Your task to perform on an android device: stop showing notifications on the lock screen Image 0: 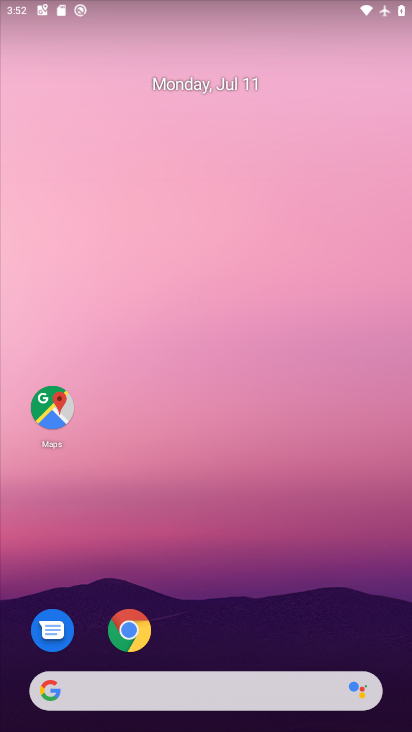
Step 0: drag from (259, 631) to (215, 95)
Your task to perform on an android device: stop showing notifications on the lock screen Image 1: 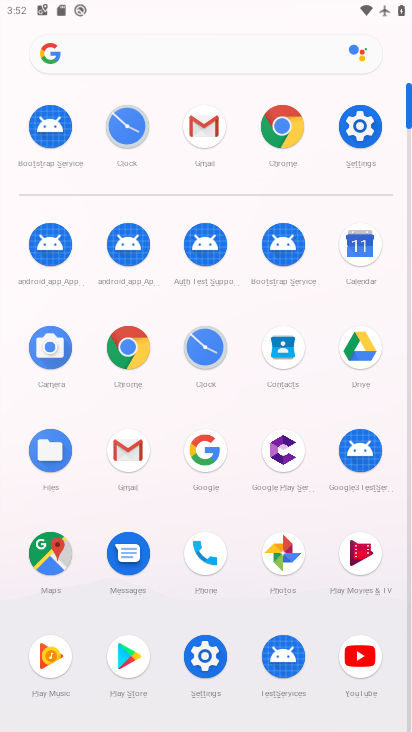
Step 1: click (379, 135)
Your task to perform on an android device: stop showing notifications on the lock screen Image 2: 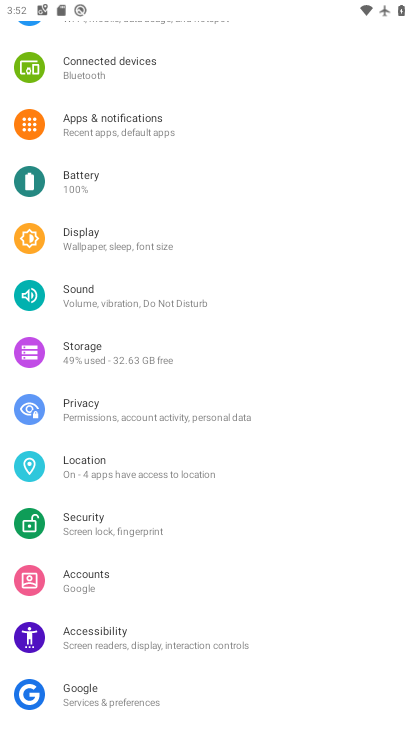
Step 2: drag from (230, 596) to (244, 363)
Your task to perform on an android device: stop showing notifications on the lock screen Image 3: 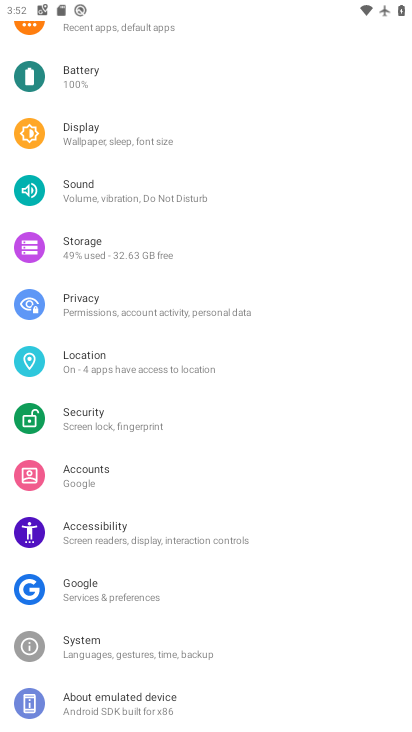
Step 3: drag from (134, 74) to (192, 280)
Your task to perform on an android device: stop showing notifications on the lock screen Image 4: 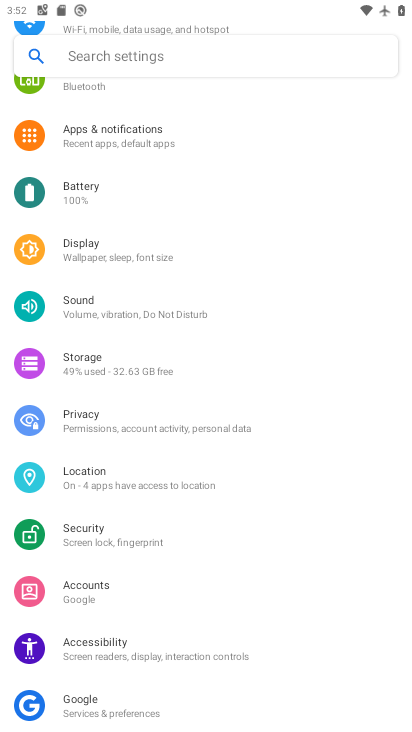
Step 4: click (142, 143)
Your task to perform on an android device: stop showing notifications on the lock screen Image 5: 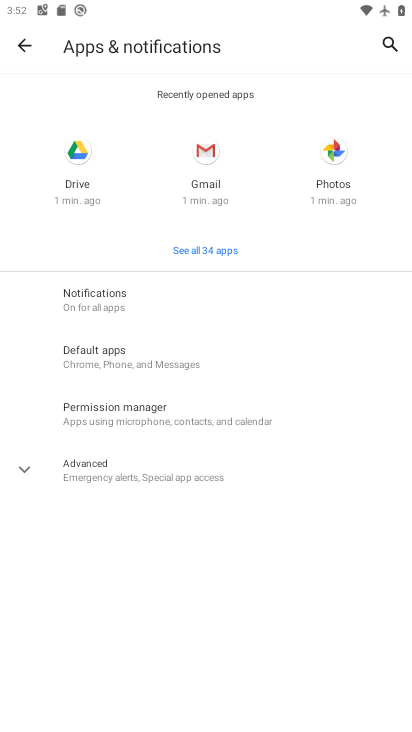
Step 5: click (165, 319)
Your task to perform on an android device: stop showing notifications on the lock screen Image 6: 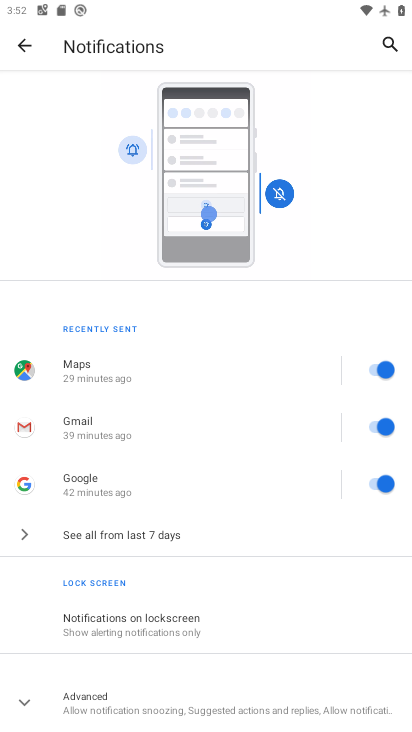
Step 6: click (250, 626)
Your task to perform on an android device: stop showing notifications on the lock screen Image 7: 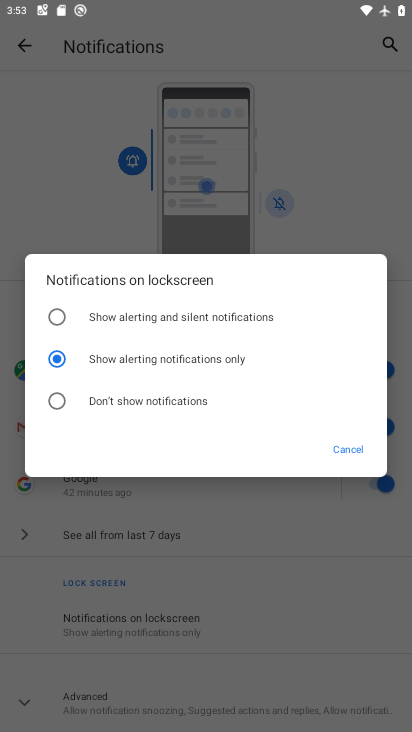
Step 7: click (143, 368)
Your task to perform on an android device: stop showing notifications on the lock screen Image 8: 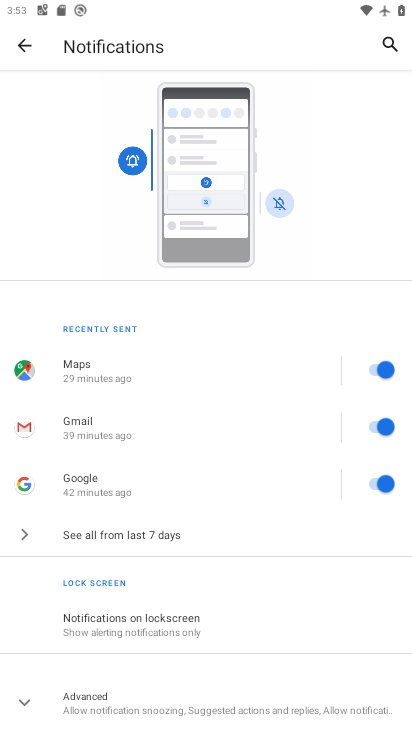
Step 8: task complete